Your task to perform on an android device: turn notification dots off Image 0: 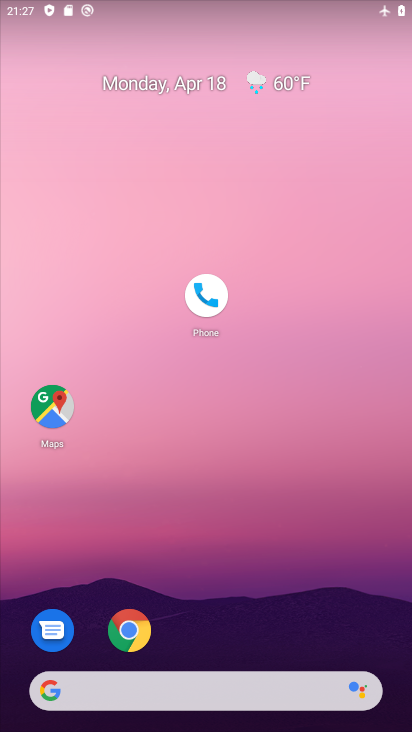
Step 0: drag from (342, 561) to (372, 58)
Your task to perform on an android device: turn notification dots off Image 1: 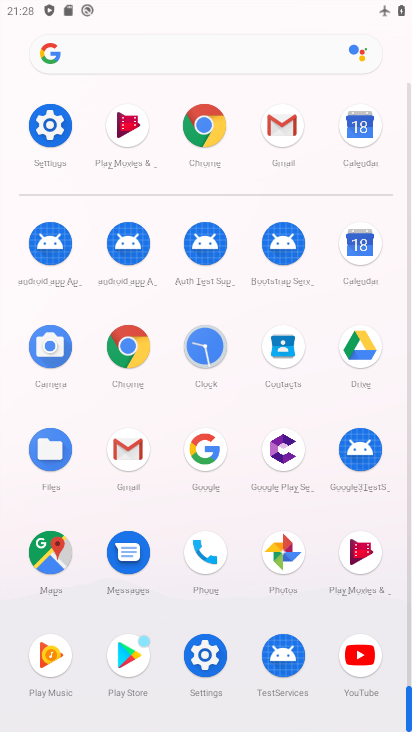
Step 1: click (48, 138)
Your task to perform on an android device: turn notification dots off Image 2: 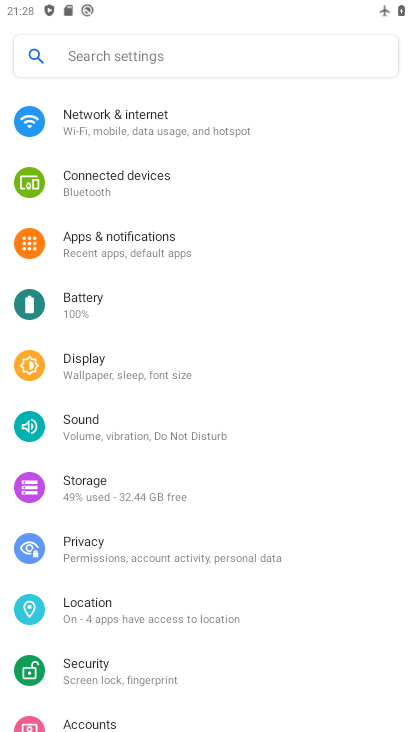
Step 2: click (160, 261)
Your task to perform on an android device: turn notification dots off Image 3: 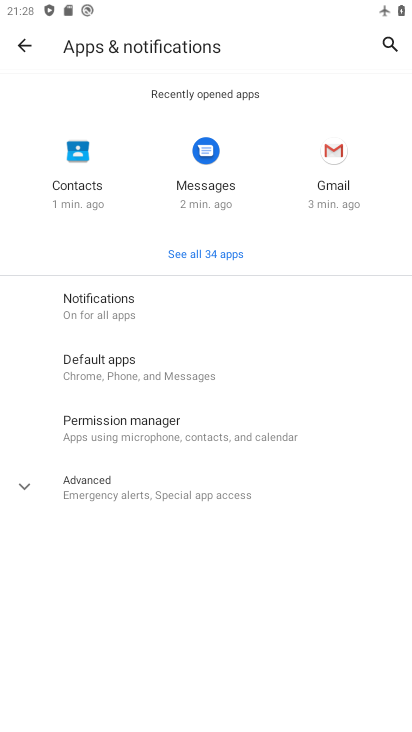
Step 3: click (129, 306)
Your task to perform on an android device: turn notification dots off Image 4: 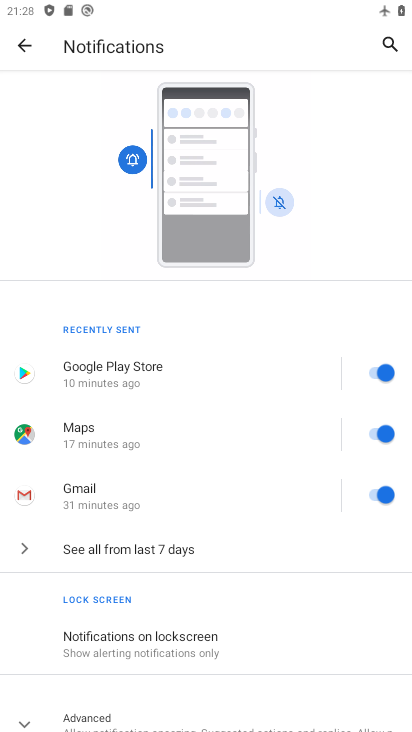
Step 4: drag from (312, 672) to (232, 210)
Your task to perform on an android device: turn notification dots off Image 5: 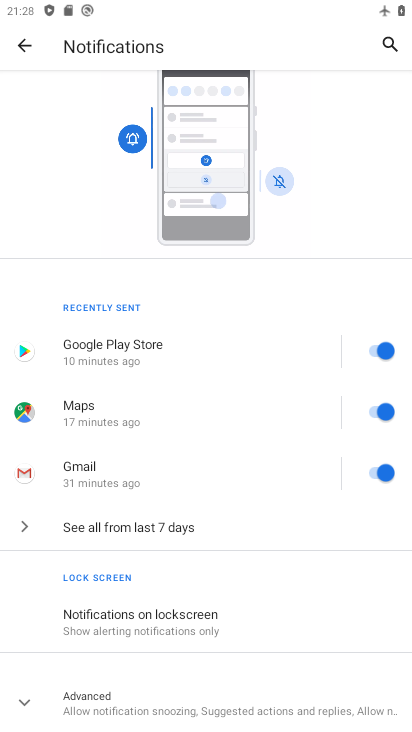
Step 5: click (223, 719)
Your task to perform on an android device: turn notification dots off Image 6: 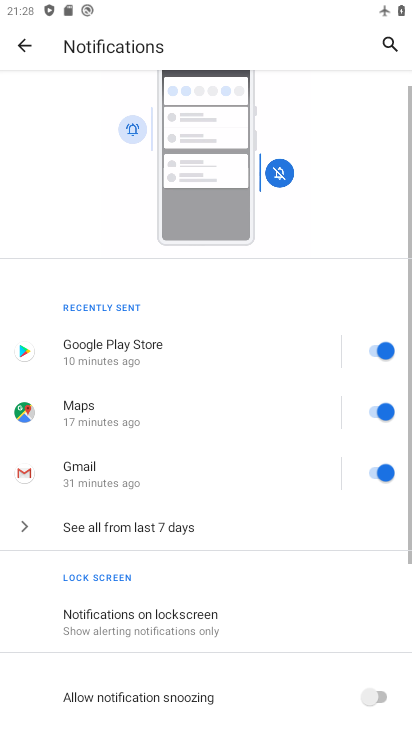
Step 6: drag from (272, 627) to (265, 257)
Your task to perform on an android device: turn notification dots off Image 7: 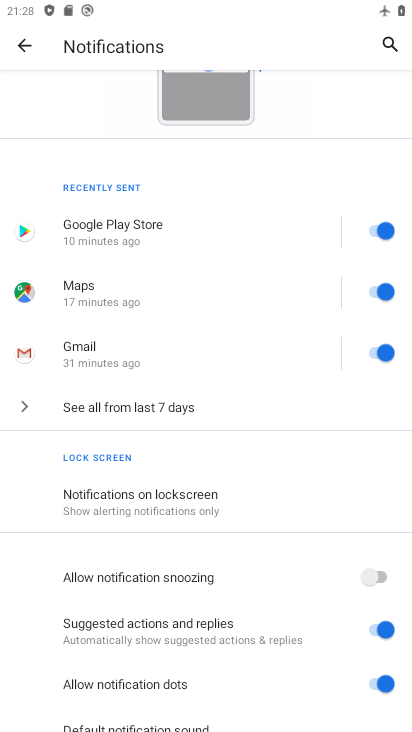
Step 7: drag from (276, 699) to (232, 352)
Your task to perform on an android device: turn notification dots off Image 8: 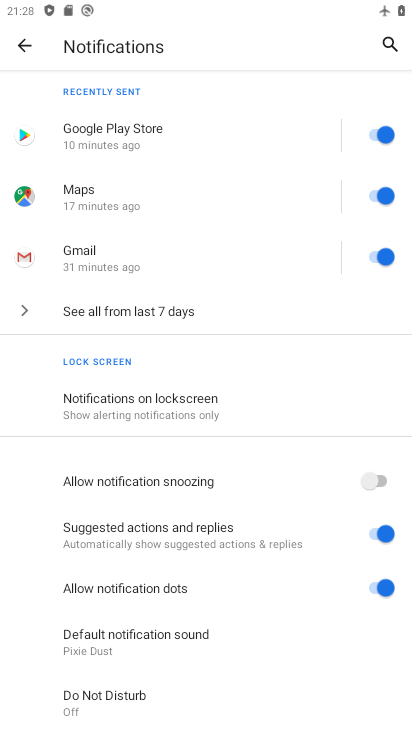
Step 8: click (374, 590)
Your task to perform on an android device: turn notification dots off Image 9: 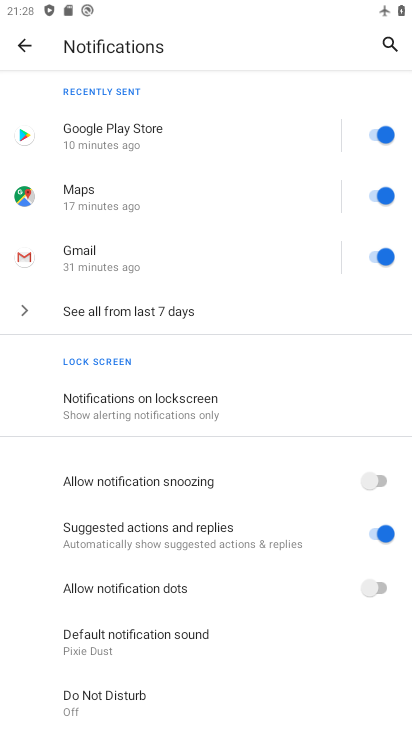
Step 9: task complete